Your task to perform on an android device: add a label to a message in the gmail app Image 0: 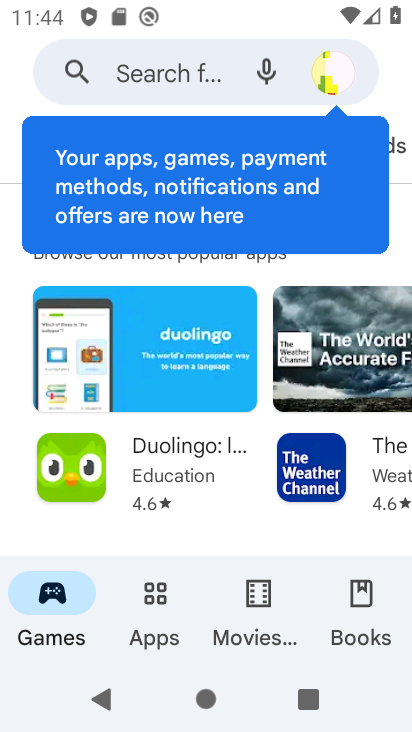
Step 0: press home button
Your task to perform on an android device: add a label to a message in the gmail app Image 1: 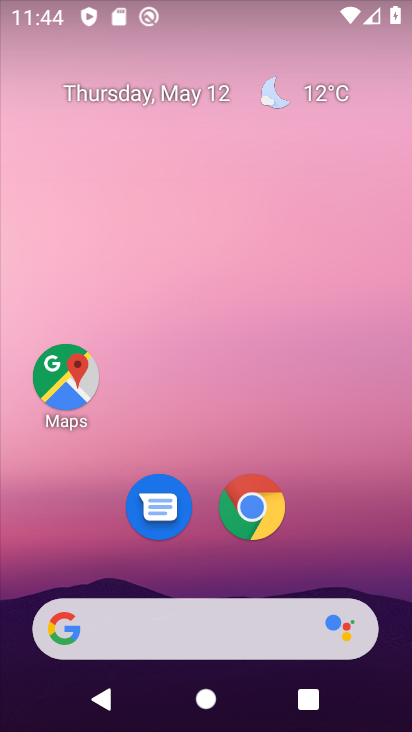
Step 1: drag from (314, 503) to (295, 139)
Your task to perform on an android device: add a label to a message in the gmail app Image 2: 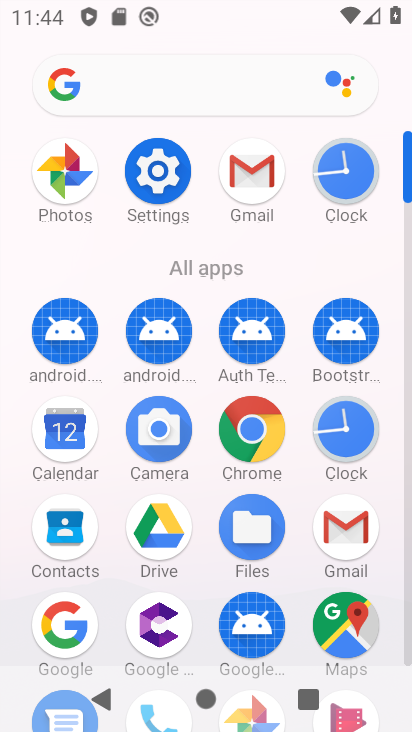
Step 2: click (359, 543)
Your task to perform on an android device: add a label to a message in the gmail app Image 3: 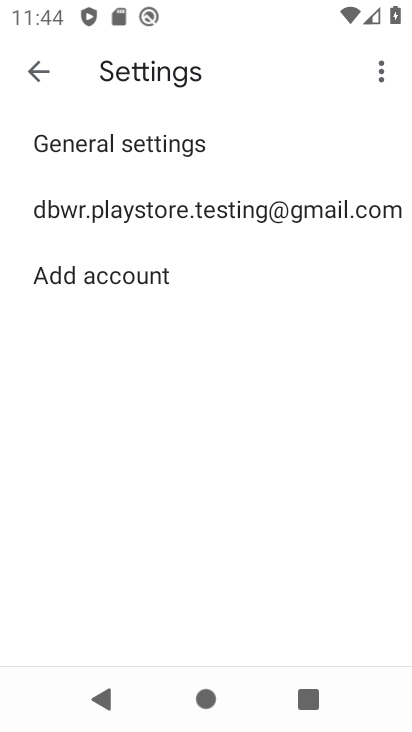
Step 3: press back button
Your task to perform on an android device: add a label to a message in the gmail app Image 4: 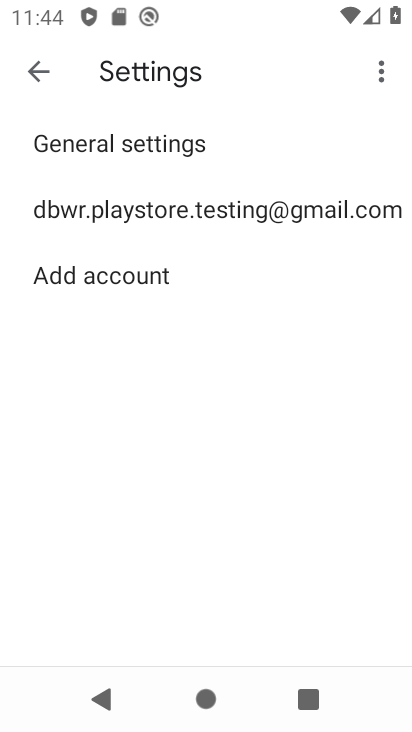
Step 4: press back button
Your task to perform on an android device: add a label to a message in the gmail app Image 5: 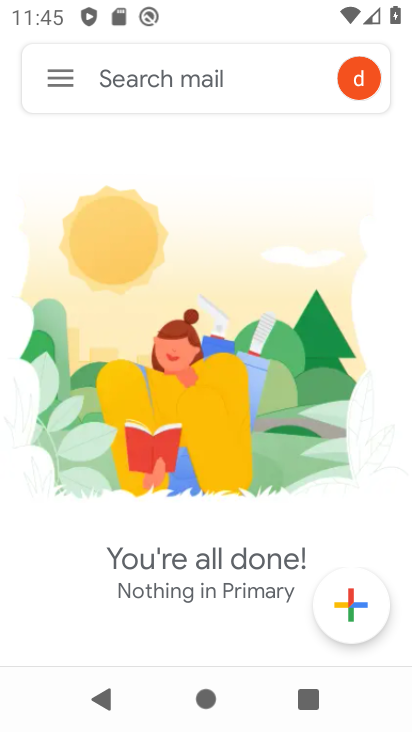
Step 5: click (53, 79)
Your task to perform on an android device: add a label to a message in the gmail app Image 6: 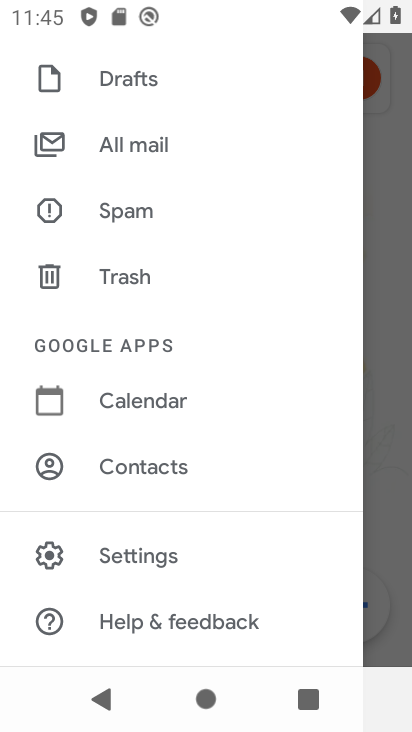
Step 6: drag from (217, 195) to (266, 553)
Your task to perform on an android device: add a label to a message in the gmail app Image 7: 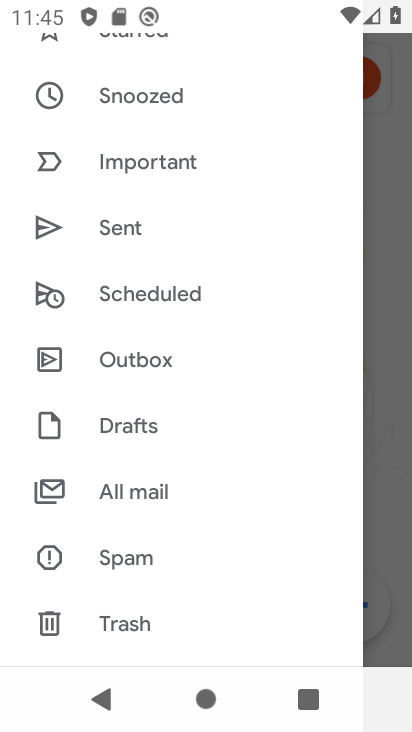
Step 7: drag from (215, 238) to (219, 512)
Your task to perform on an android device: add a label to a message in the gmail app Image 8: 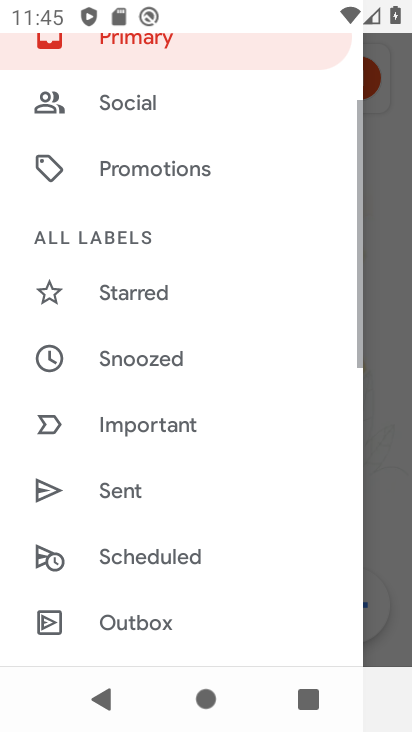
Step 8: click (375, 374)
Your task to perform on an android device: add a label to a message in the gmail app Image 9: 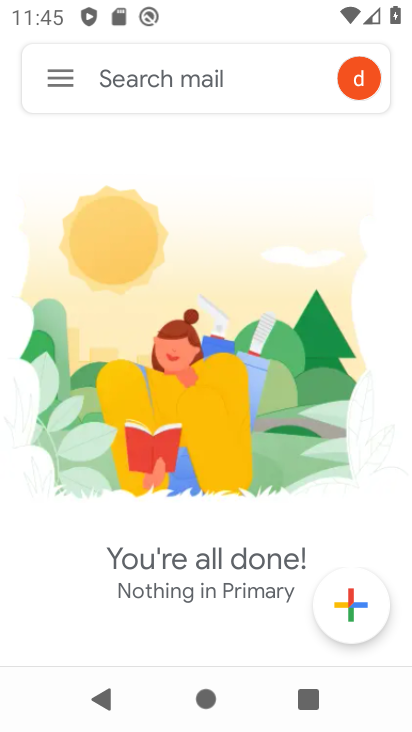
Step 9: task complete